Your task to perform on an android device: toggle improve location accuracy Image 0: 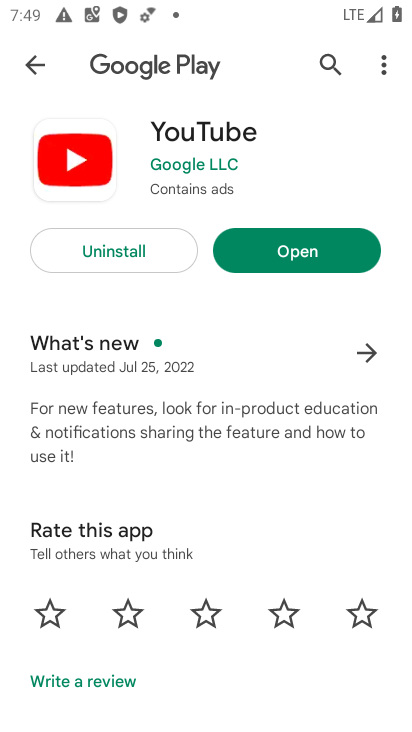
Step 0: press home button
Your task to perform on an android device: toggle improve location accuracy Image 1: 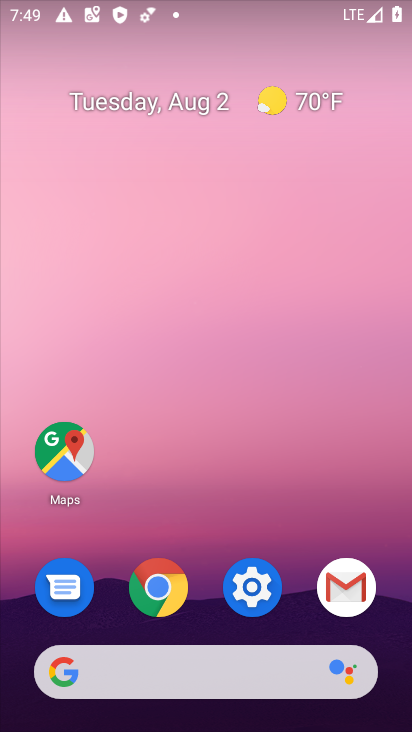
Step 1: click (264, 601)
Your task to perform on an android device: toggle improve location accuracy Image 2: 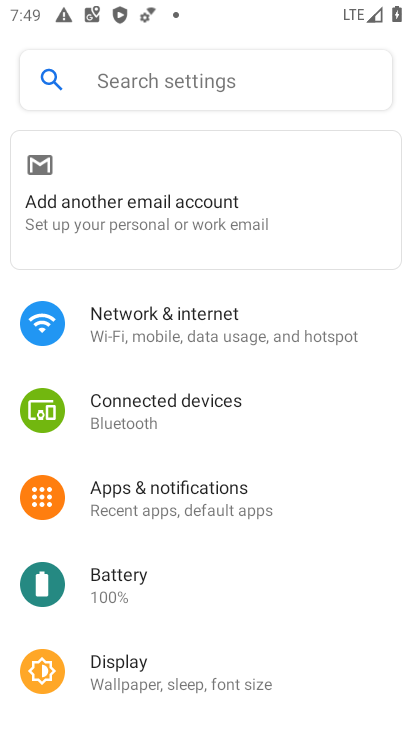
Step 2: click (183, 67)
Your task to perform on an android device: toggle improve location accuracy Image 3: 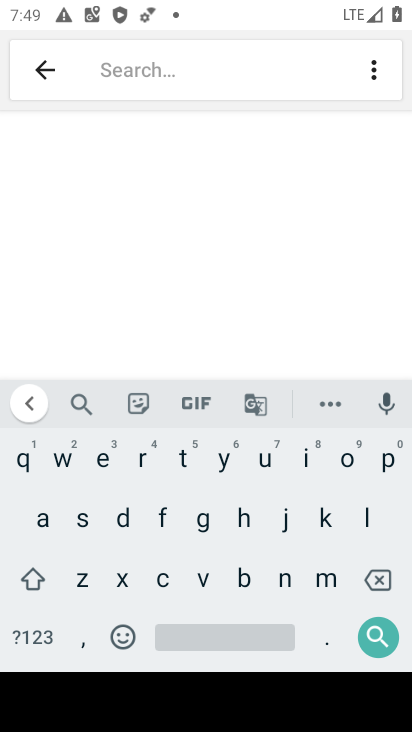
Step 3: click (374, 522)
Your task to perform on an android device: toggle improve location accuracy Image 4: 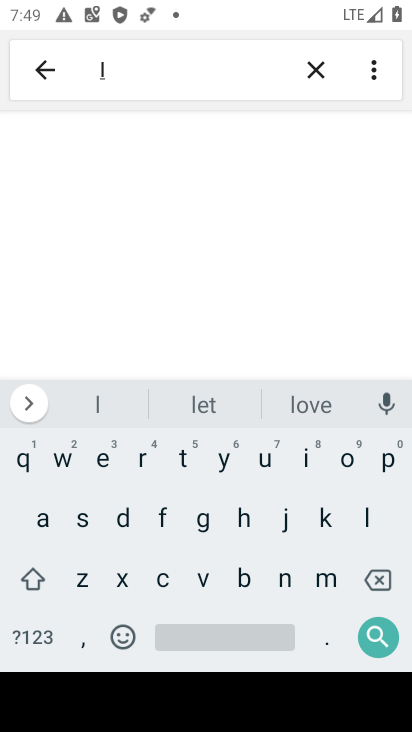
Step 4: click (354, 451)
Your task to perform on an android device: toggle improve location accuracy Image 5: 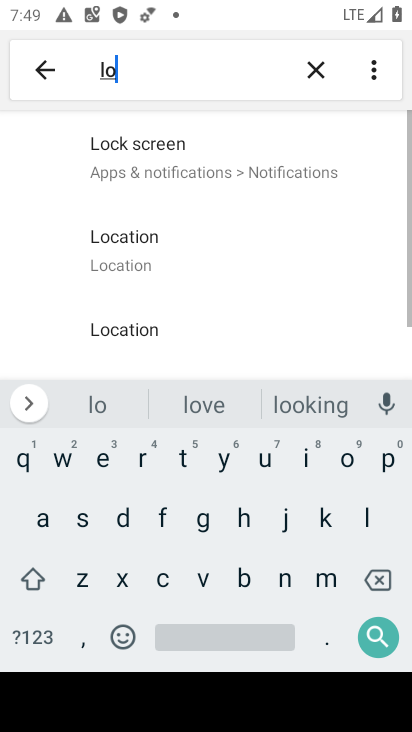
Step 5: click (133, 249)
Your task to perform on an android device: toggle improve location accuracy Image 6: 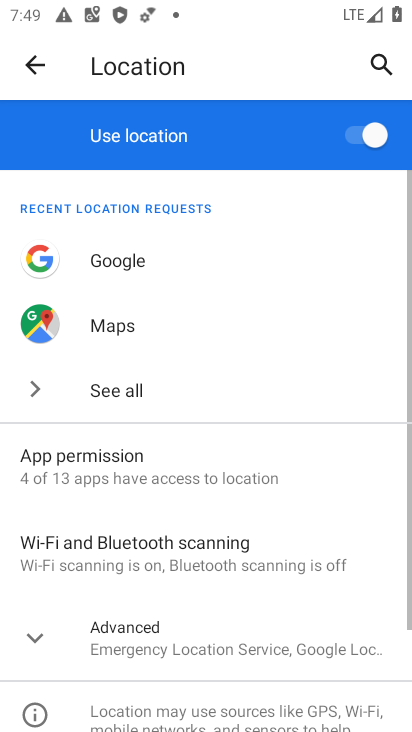
Step 6: click (53, 629)
Your task to perform on an android device: toggle improve location accuracy Image 7: 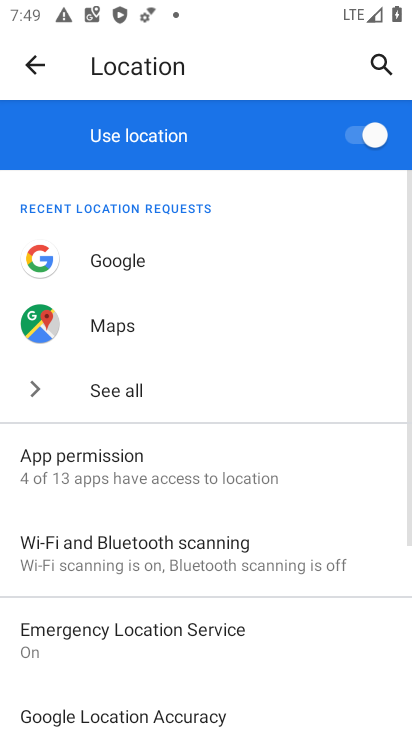
Step 7: click (119, 714)
Your task to perform on an android device: toggle improve location accuracy Image 8: 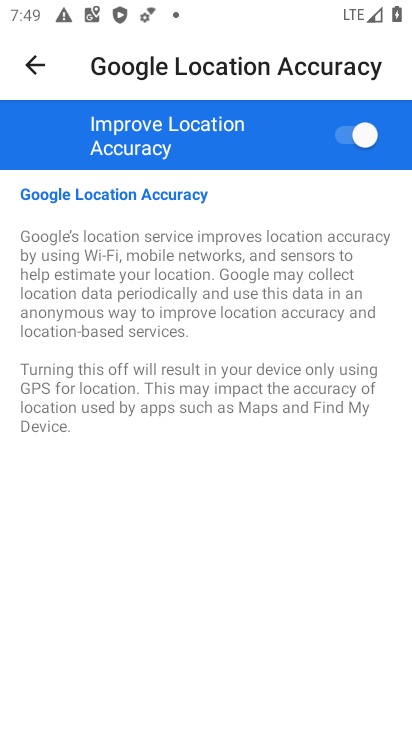
Step 8: task complete